Your task to perform on an android device: Go to eBay Image 0: 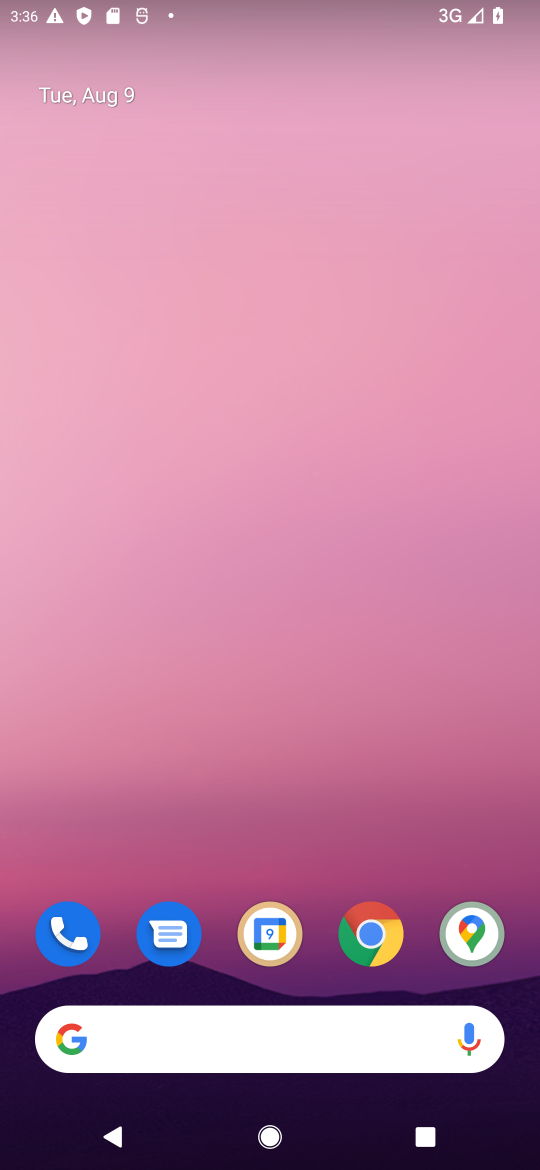
Step 0: click (385, 967)
Your task to perform on an android device: Go to eBay Image 1: 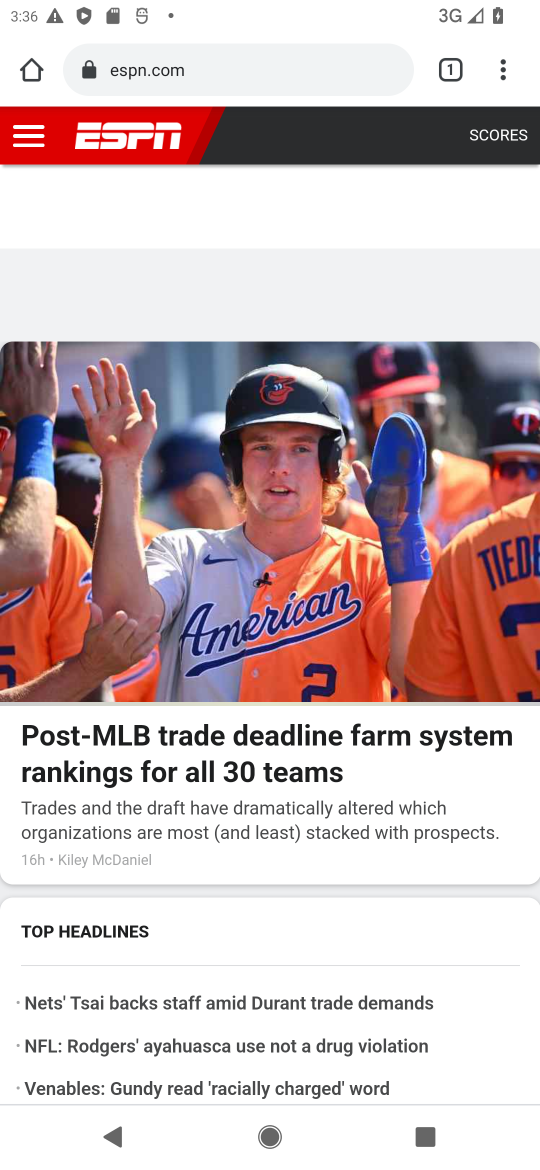
Step 1: click (293, 66)
Your task to perform on an android device: Go to eBay Image 2: 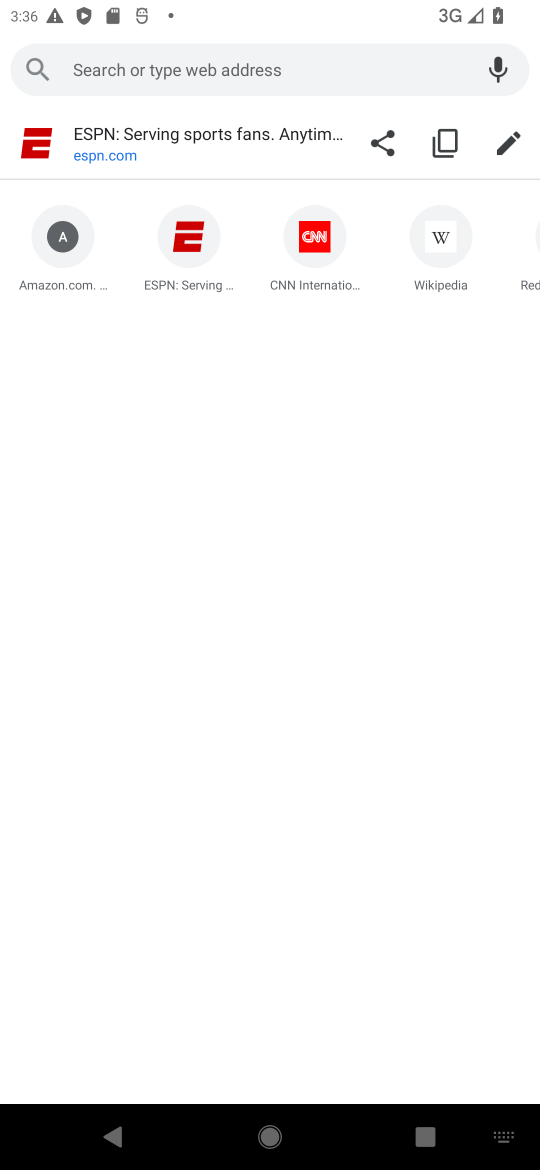
Step 2: task complete